Your task to perform on an android device: toggle notifications settings in the gmail app Image 0: 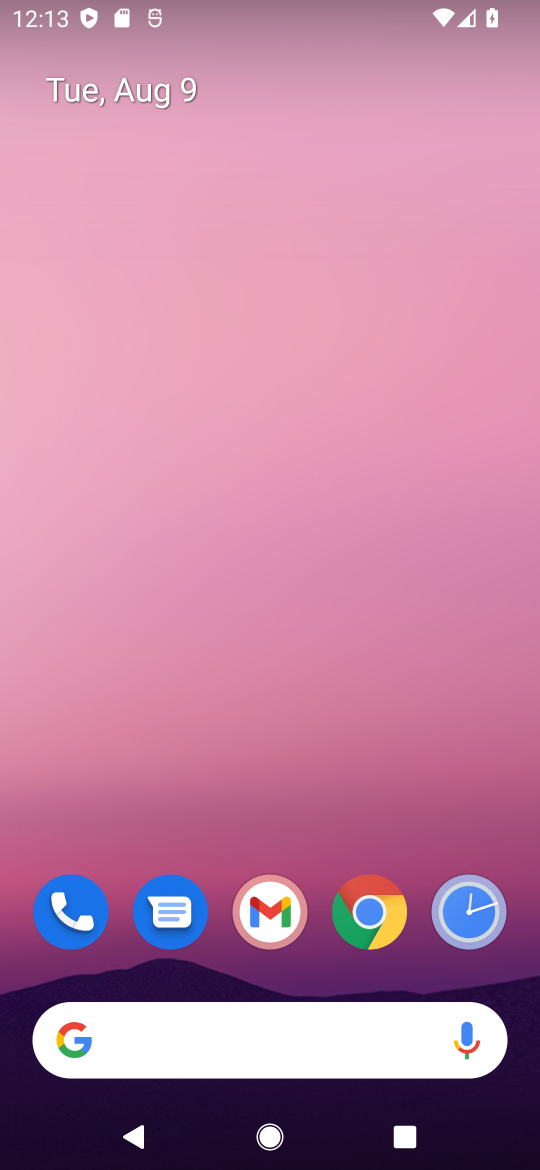
Step 0: drag from (308, 421) to (308, 356)
Your task to perform on an android device: toggle notifications settings in the gmail app Image 1: 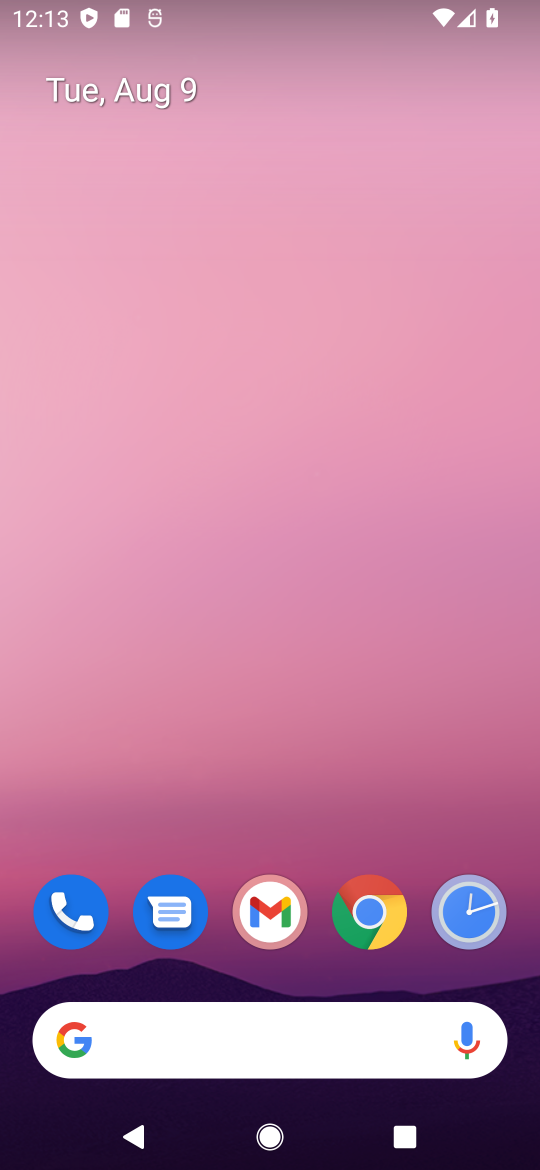
Step 1: click (292, 937)
Your task to perform on an android device: toggle notifications settings in the gmail app Image 2: 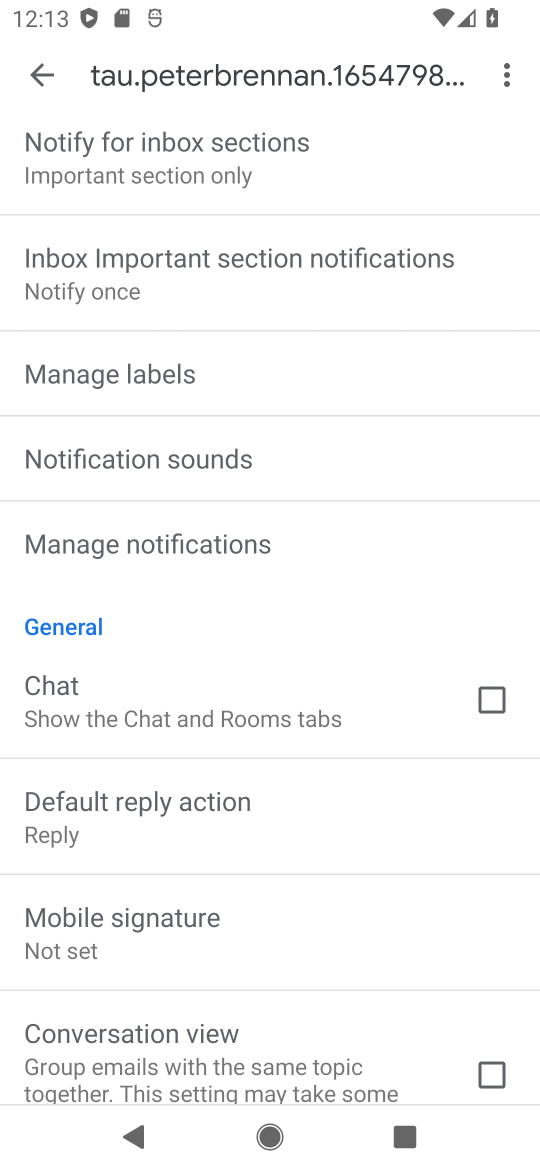
Step 2: click (141, 545)
Your task to perform on an android device: toggle notifications settings in the gmail app Image 3: 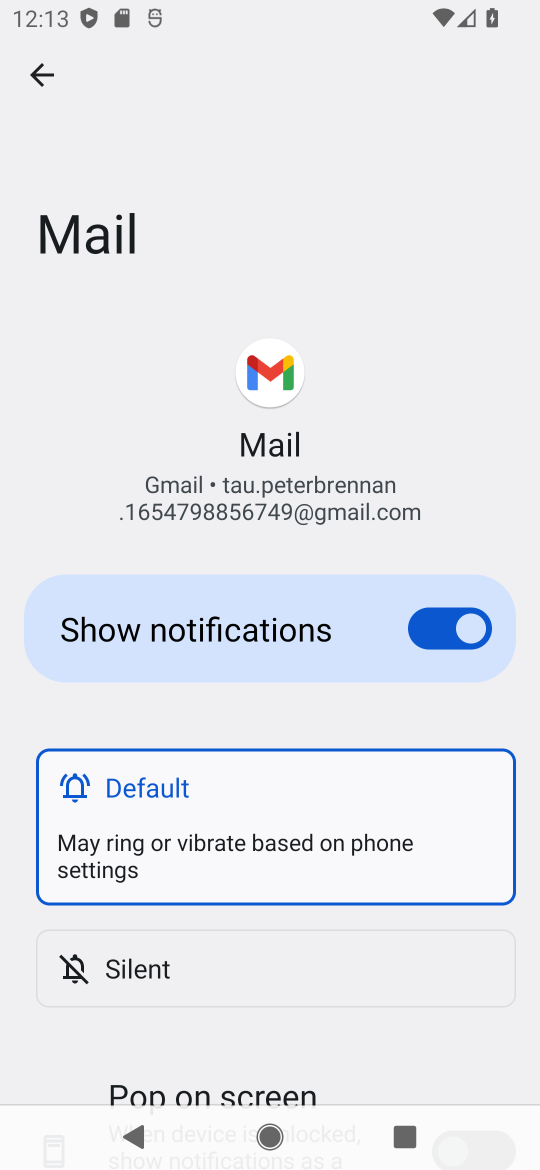
Step 3: task complete